Your task to perform on an android device: Show the shopping cart on walmart. Image 0: 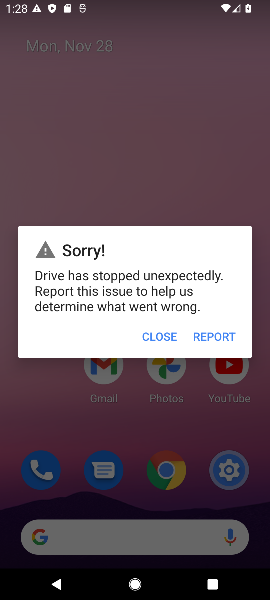
Step 0: click (161, 351)
Your task to perform on an android device: Show the shopping cart on walmart. Image 1: 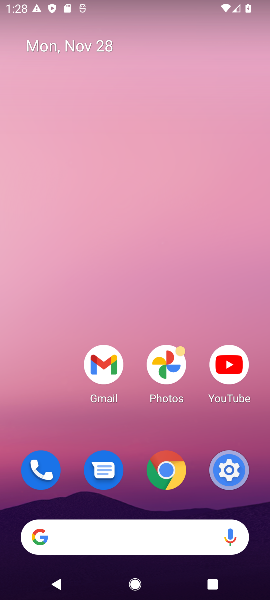
Step 1: click (155, 556)
Your task to perform on an android device: Show the shopping cart on walmart. Image 2: 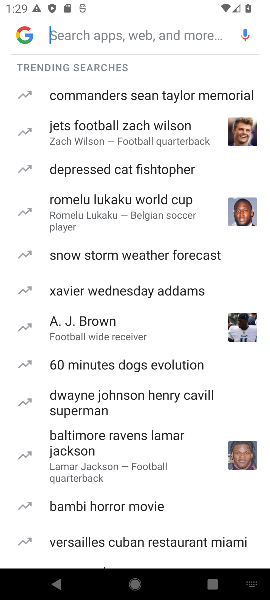
Step 2: type "walmart"
Your task to perform on an android device: Show the shopping cart on walmart. Image 3: 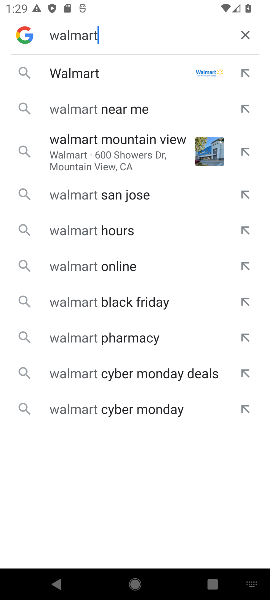
Step 3: click (89, 71)
Your task to perform on an android device: Show the shopping cart on walmart. Image 4: 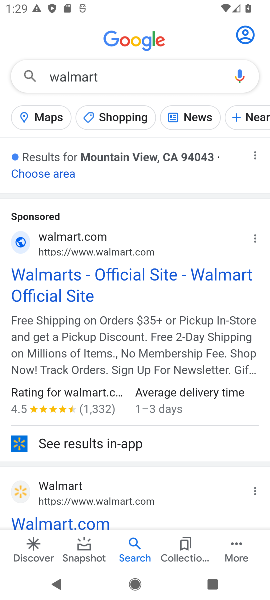
Step 4: click (79, 301)
Your task to perform on an android device: Show the shopping cart on walmart. Image 5: 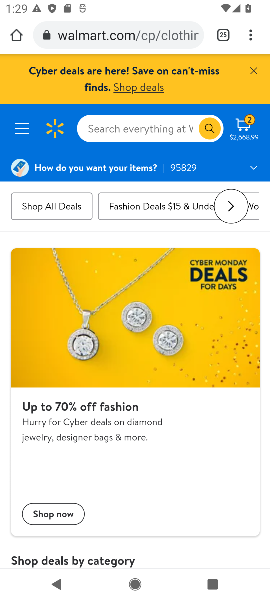
Step 5: click (169, 138)
Your task to perform on an android device: Show the shopping cart on walmart. Image 6: 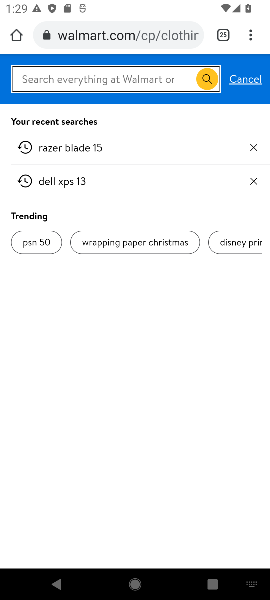
Step 6: type "walmart"
Your task to perform on an android device: Show the shopping cart on walmart. Image 7: 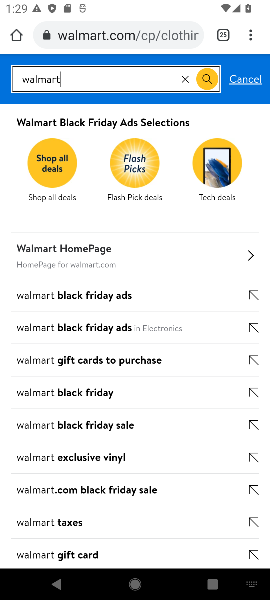
Step 7: task complete